Your task to perform on an android device: turn off location Image 0: 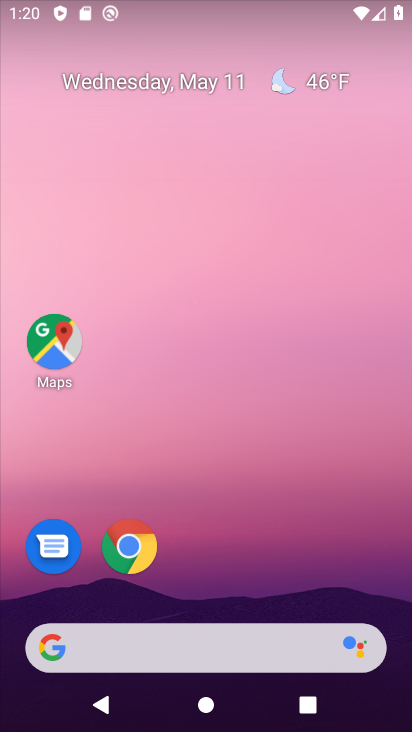
Step 0: drag from (188, 610) to (213, 56)
Your task to perform on an android device: turn off location Image 1: 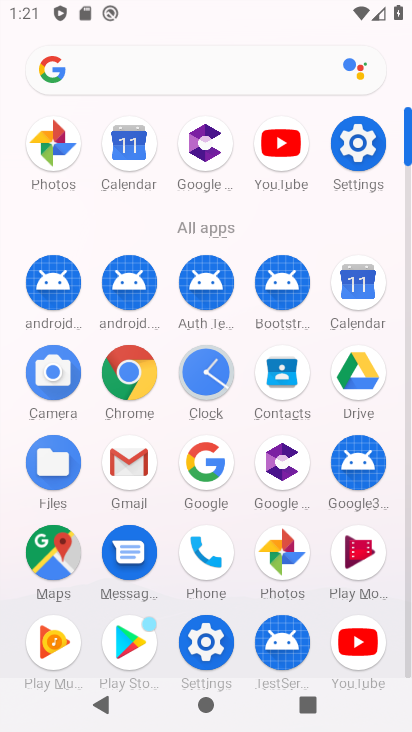
Step 1: click (205, 643)
Your task to perform on an android device: turn off location Image 2: 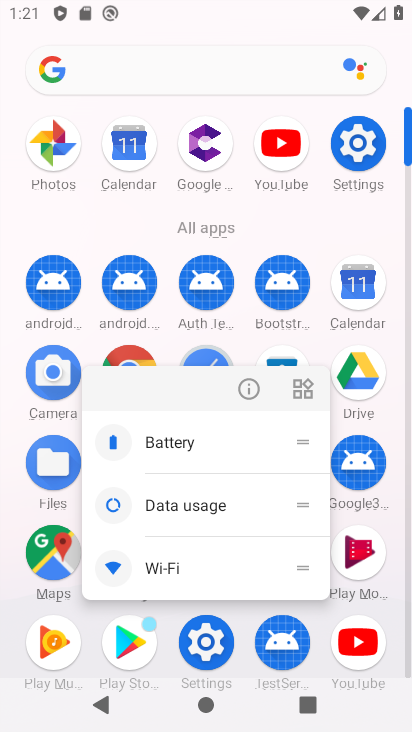
Step 2: click (252, 380)
Your task to perform on an android device: turn off location Image 3: 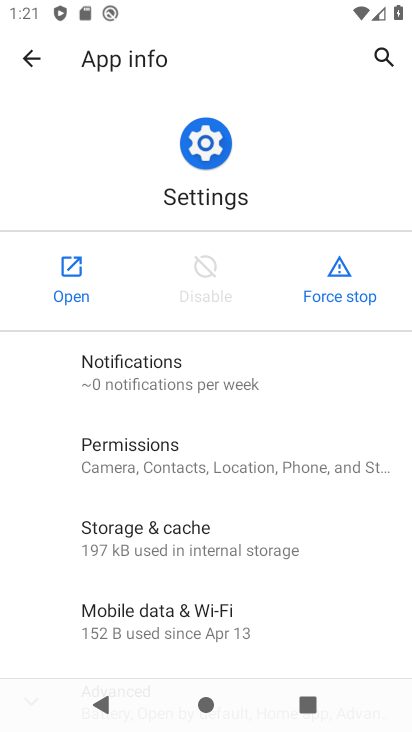
Step 3: click (75, 262)
Your task to perform on an android device: turn off location Image 4: 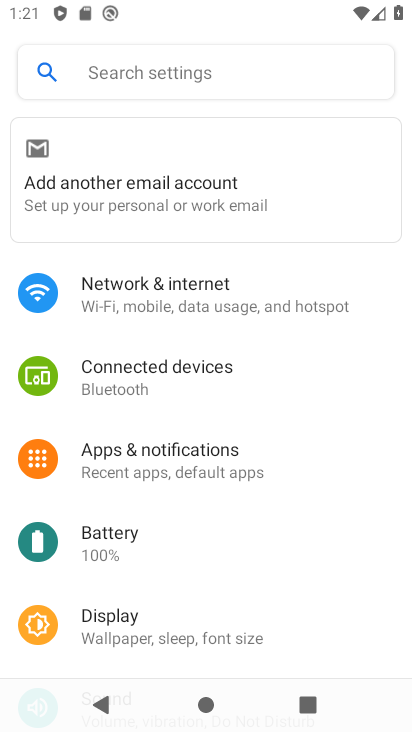
Step 4: drag from (186, 582) to (258, 76)
Your task to perform on an android device: turn off location Image 5: 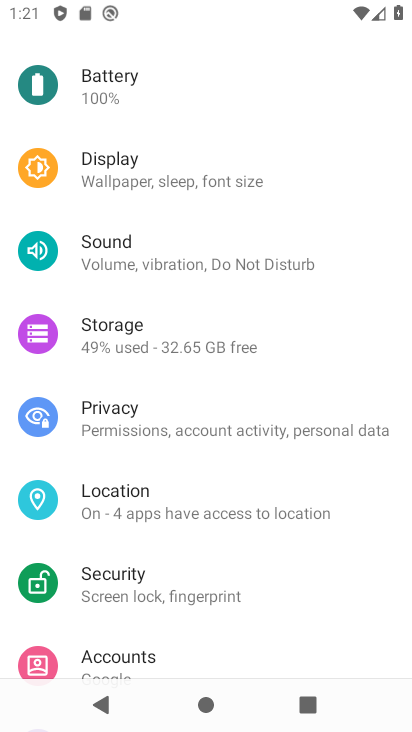
Step 5: click (160, 503)
Your task to perform on an android device: turn off location Image 6: 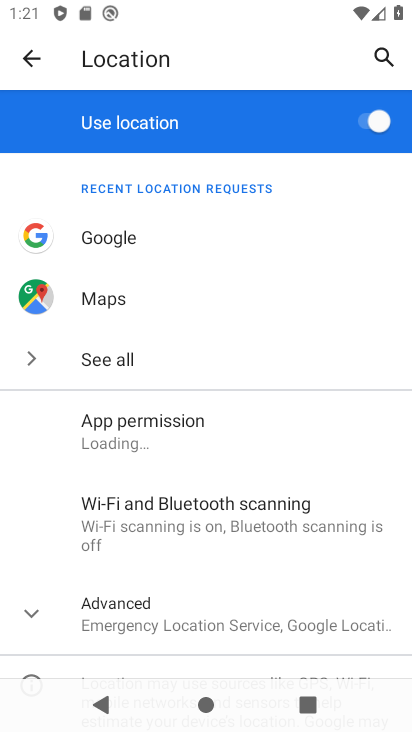
Step 6: drag from (194, 542) to (291, 253)
Your task to perform on an android device: turn off location Image 7: 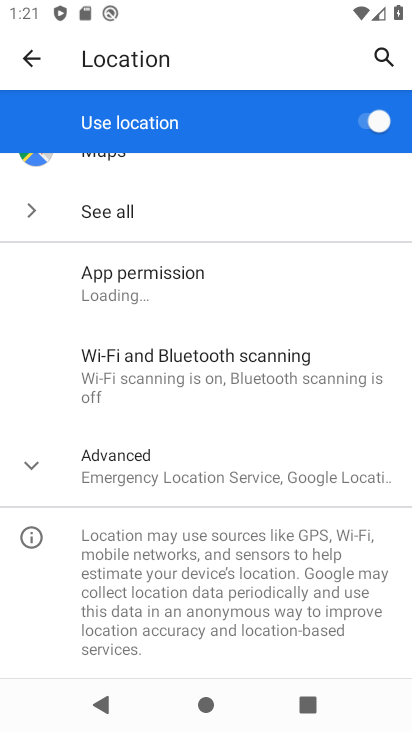
Step 7: click (360, 103)
Your task to perform on an android device: turn off location Image 8: 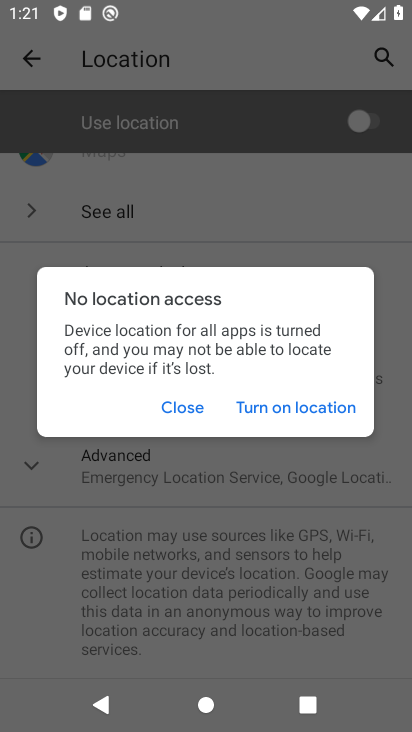
Step 8: task complete